Your task to perform on an android device: turn on the 24-hour format for clock Image 0: 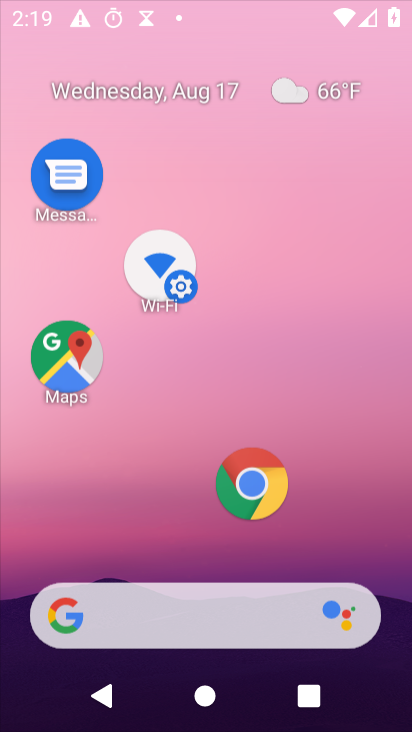
Step 0: press home button
Your task to perform on an android device: turn on the 24-hour format for clock Image 1: 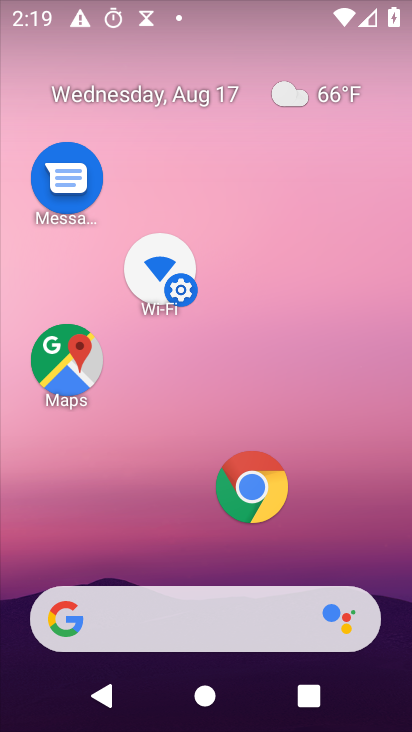
Step 1: drag from (225, 573) to (246, 111)
Your task to perform on an android device: turn on the 24-hour format for clock Image 2: 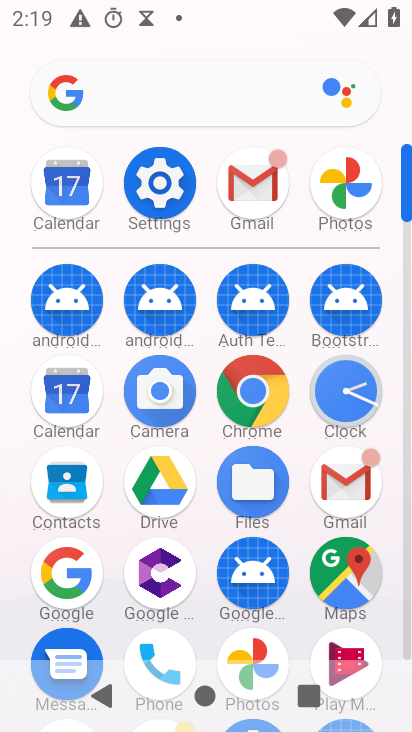
Step 2: click (159, 181)
Your task to perform on an android device: turn on the 24-hour format for clock Image 3: 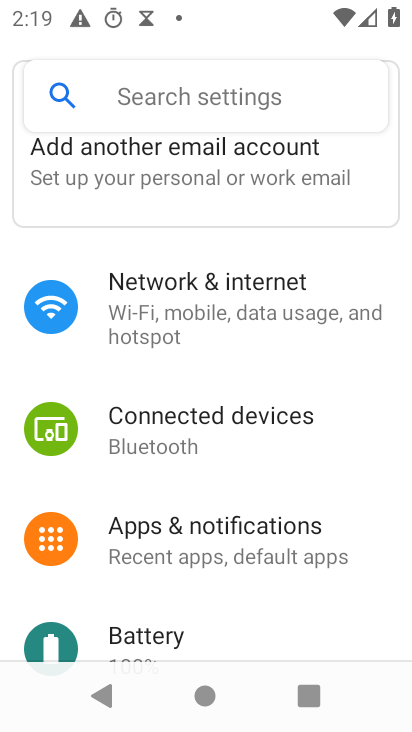
Step 3: drag from (344, 640) to (311, 131)
Your task to perform on an android device: turn on the 24-hour format for clock Image 4: 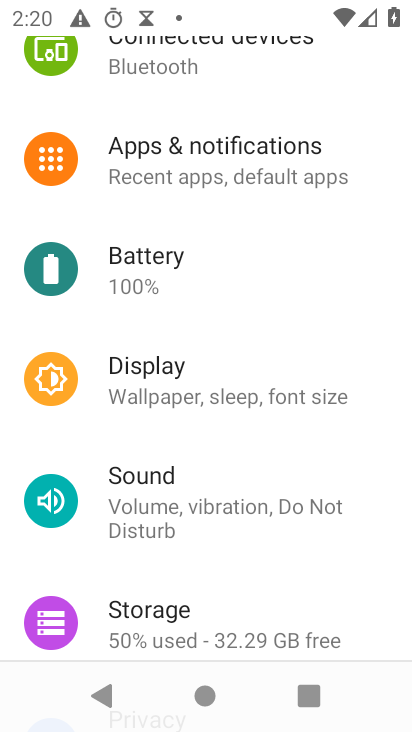
Step 4: drag from (277, 548) to (157, 94)
Your task to perform on an android device: turn on the 24-hour format for clock Image 5: 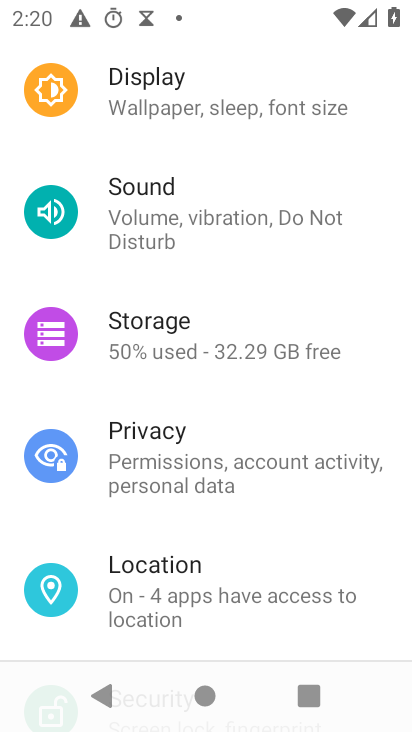
Step 5: drag from (306, 618) to (278, 212)
Your task to perform on an android device: turn on the 24-hour format for clock Image 6: 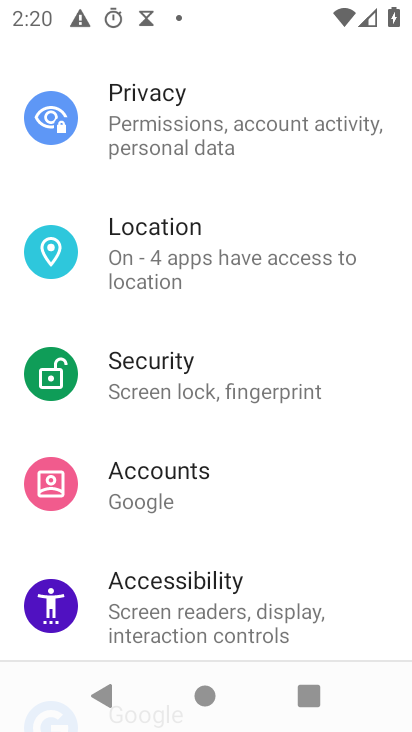
Step 6: drag from (324, 543) to (269, 199)
Your task to perform on an android device: turn on the 24-hour format for clock Image 7: 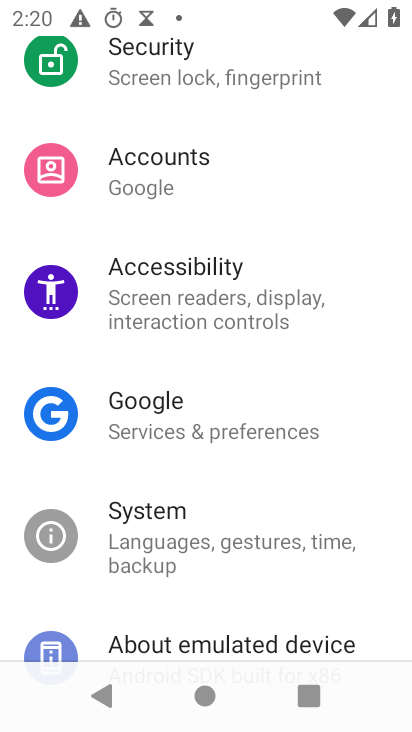
Step 7: click (144, 540)
Your task to perform on an android device: turn on the 24-hour format for clock Image 8: 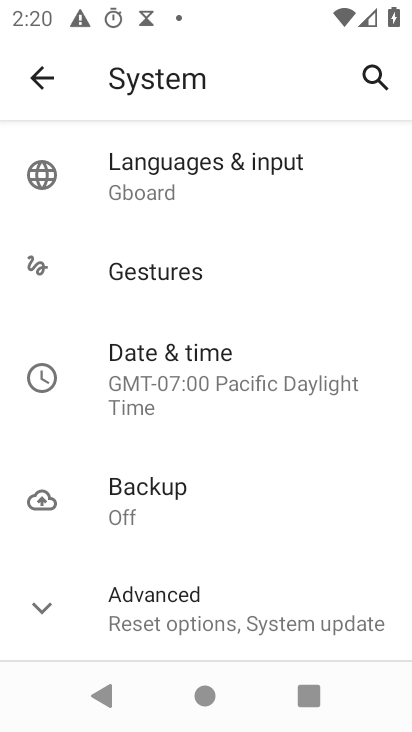
Step 8: click (156, 373)
Your task to perform on an android device: turn on the 24-hour format for clock Image 9: 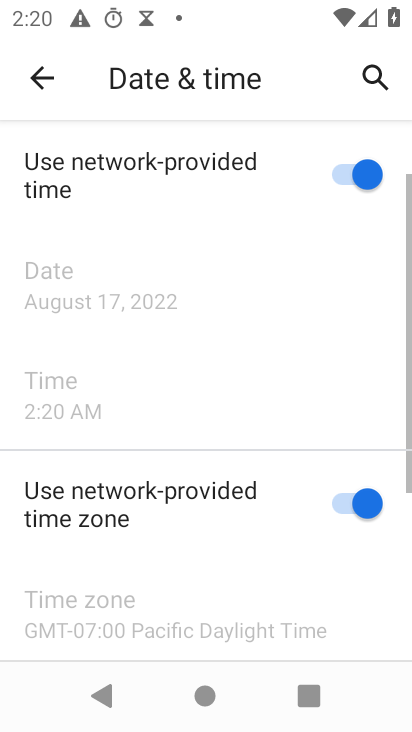
Step 9: drag from (381, 573) to (280, 265)
Your task to perform on an android device: turn on the 24-hour format for clock Image 10: 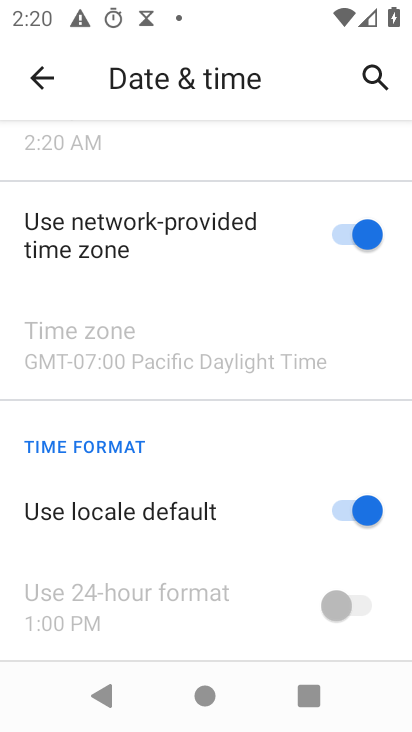
Step 10: click (364, 502)
Your task to perform on an android device: turn on the 24-hour format for clock Image 11: 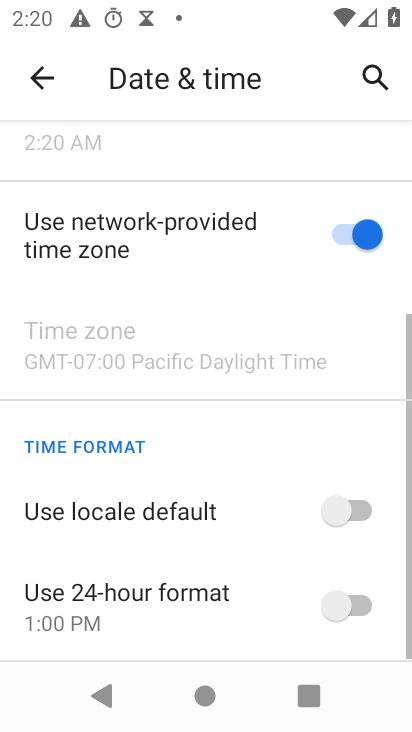
Step 11: click (335, 609)
Your task to perform on an android device: turn on the 24-hour format for clock Image 12: 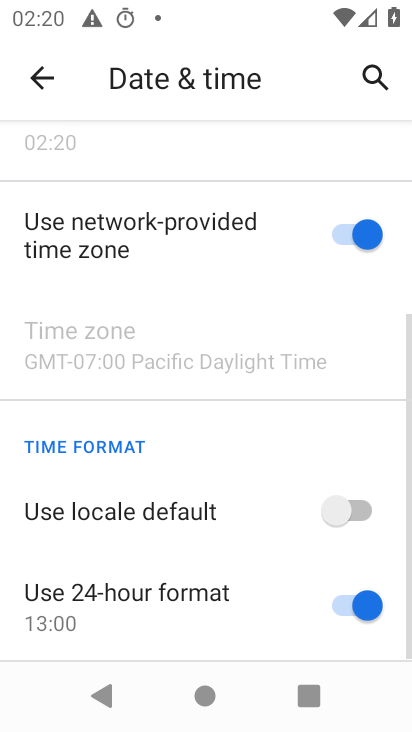
Step 12: task complete